Your task to perform on an android device: Open the calendar and show me this week's events? Image 0: 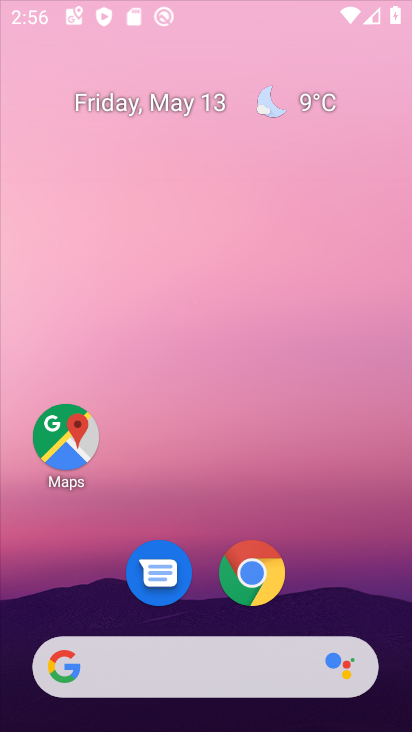
Step 0: click (279, 98)
Your task to perform on an android device: Open the calendar and show me this week's events? Image 1: 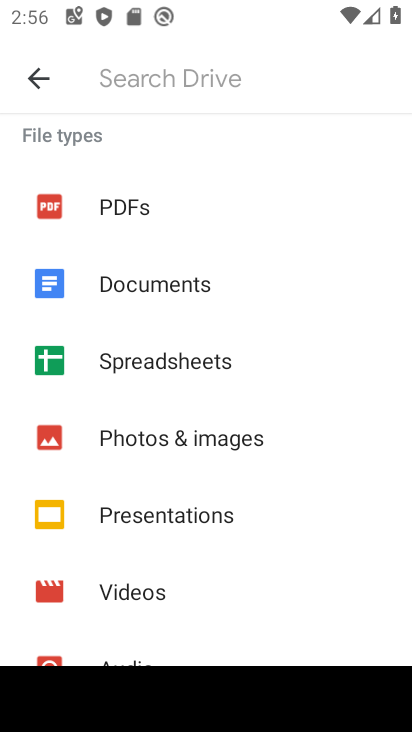
Step 1: press back button
Your task to perform on an android device: Open the calendar and show me this week's events? Image 2: 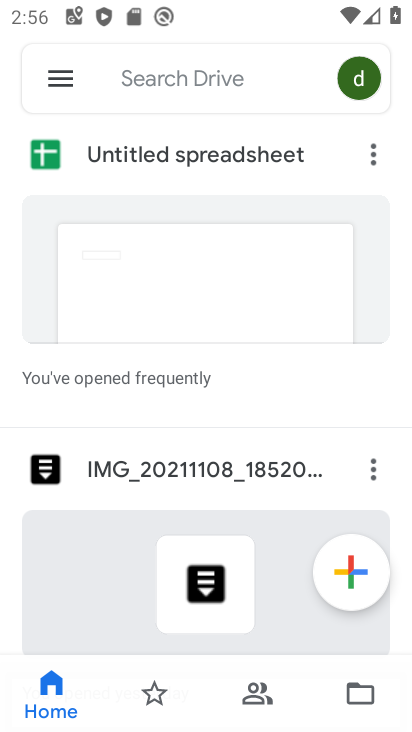
Step 2: press back button
Your task to perform on an android device: Open the calendar and show me this week's events? Image 3: 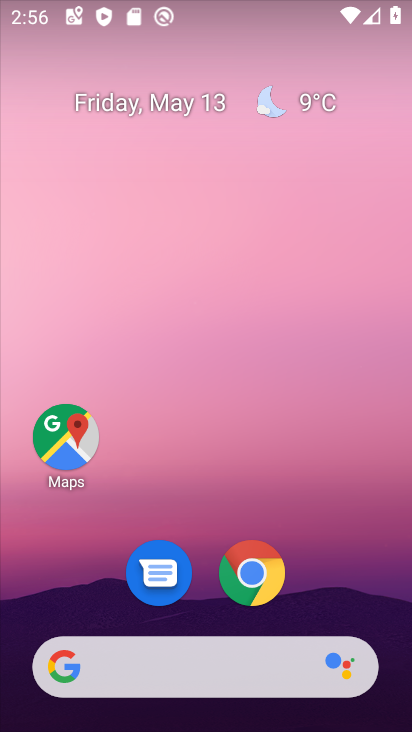
Step 3: drag from (190, 585) to (226, 131)
Your task to perform on an android device: Open the calendar and show me this week's events? Image 4: 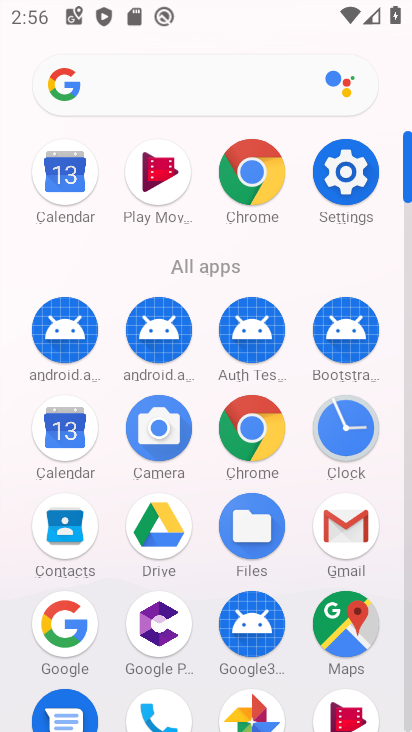
Step 4: click (76, 186)
Your task to perform on an android device: Open the calendar and show me this week's events? Image 5: 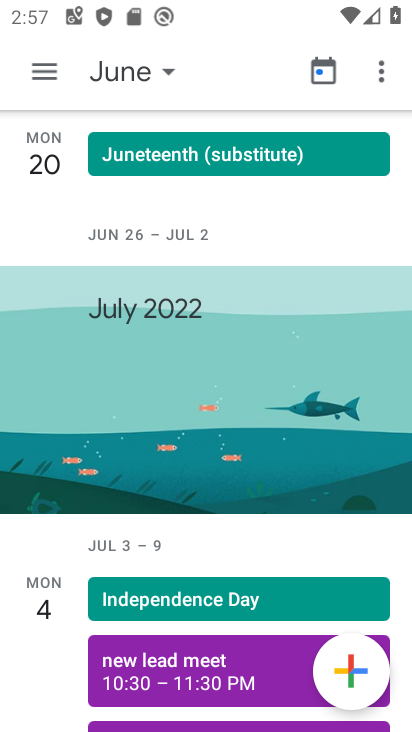
Step 5: click (39, 63)
Your task to perform on an android device: Open the calendar and show me this week's events? Image 6: 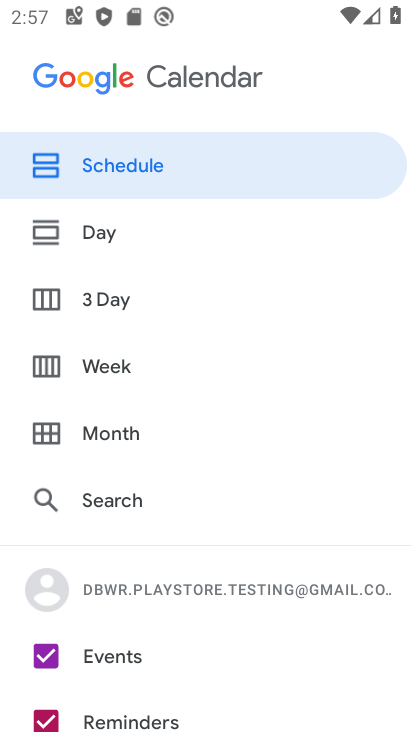
Step 6: click (127, 167)
Your task to perform on an android device: Open the calendar and show me this week's events? Image 7: 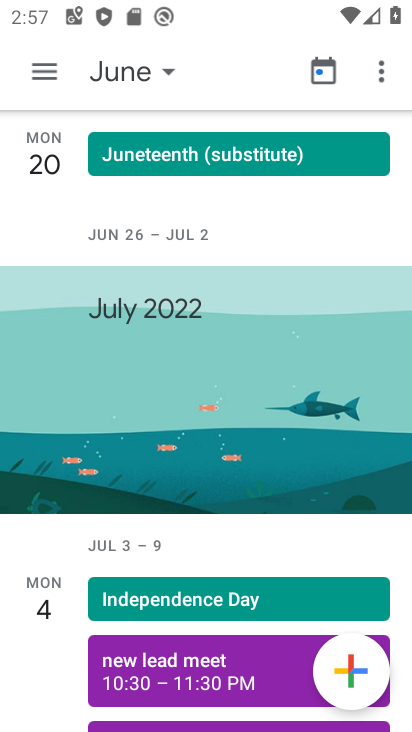
Step 7: click (100, 76)
Your task to perform on an android device: Open the calendar and show me this week's events? Image 8: 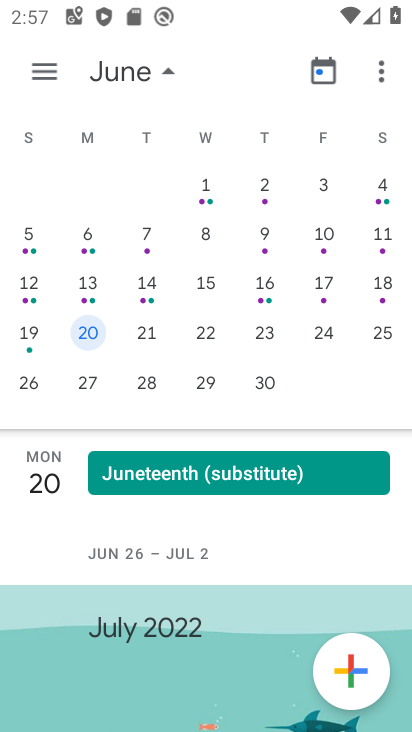
Step 8: drag from (41, 288) to (411, 287)
Your task to perform on an android device: Open the calendar and show me this week's events? Image 9: 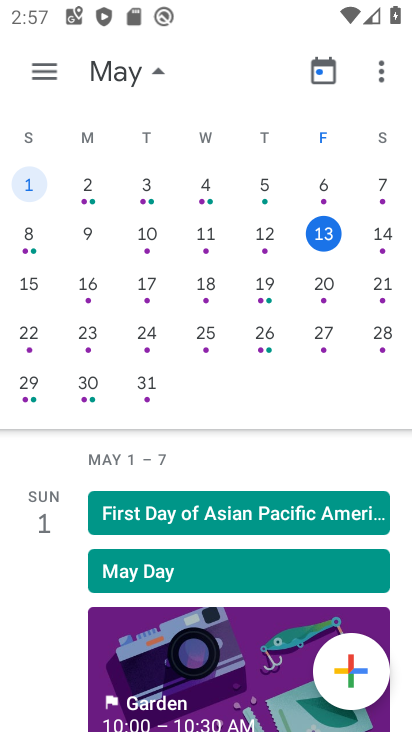
Step 9: click (328, 228)
Your task to perform on an android device: Open the calendar and show me this week's events? Image 10: 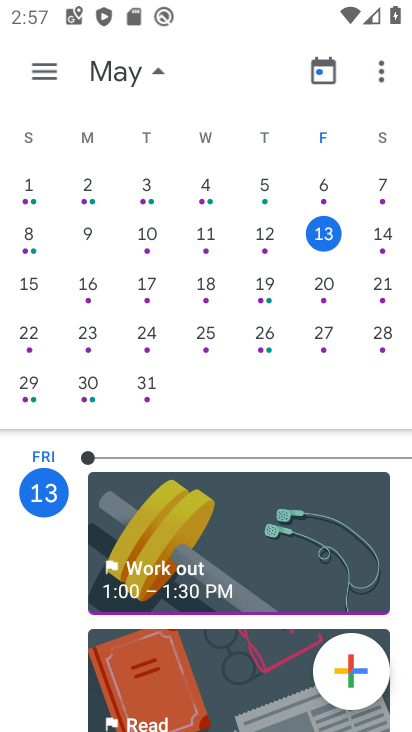
Step 10: drag from (212, 619) to (295, 206)
Your task to perform on an android device: Open the calendar and show me this week's events? Image 11: 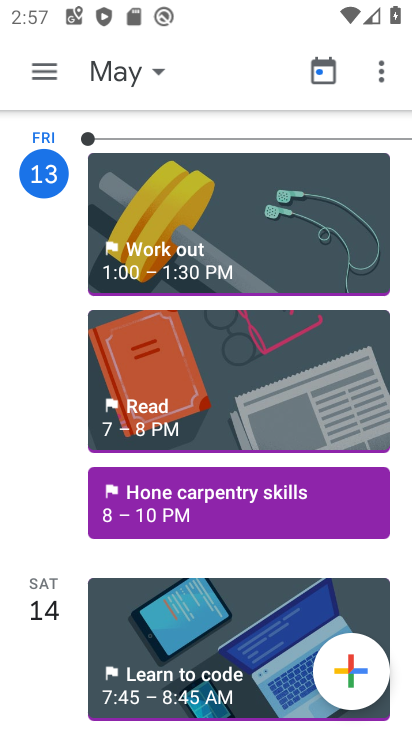
Step 11: drag from (206, 589) to (255, 256)
Your task to perform on an android device: Open the calendar and show me this week's events? Image 12: 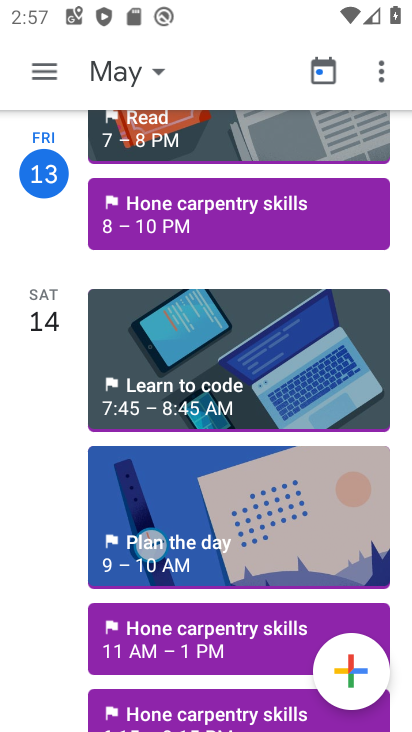
Step 12: click (166, 650)
Your task to perform on an android device: Open the calendar and show me this week's events? Image 13: 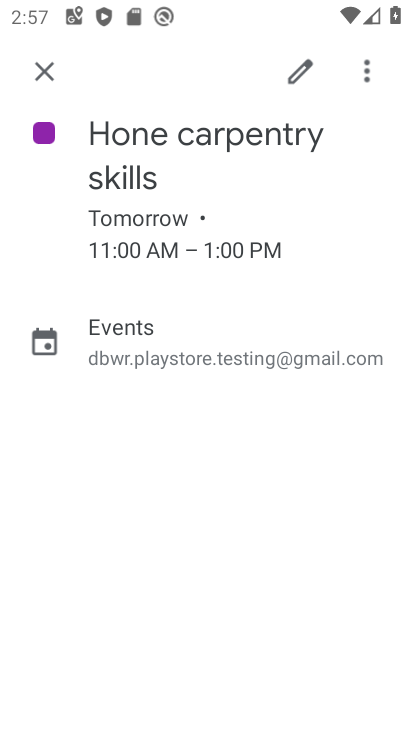
Step 13: task complete